Your task to perform on an android device: Search for sushi restaurants on Maps Image 0: 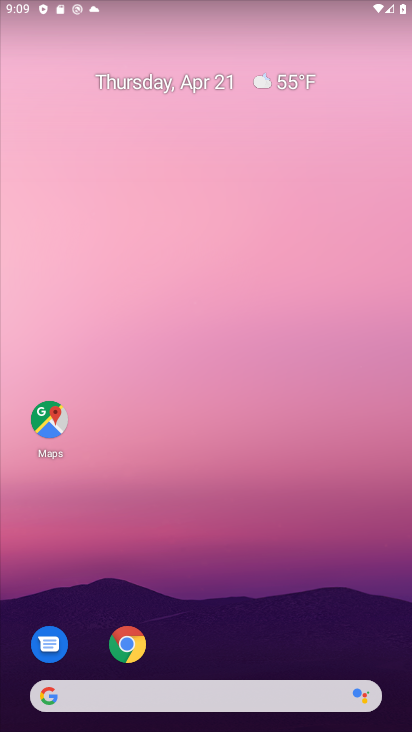
Step 0: drag from (256, 226) to (282, 123)
Your task to perform on an android device: Search for sushi restaurants on Maps Image 1: 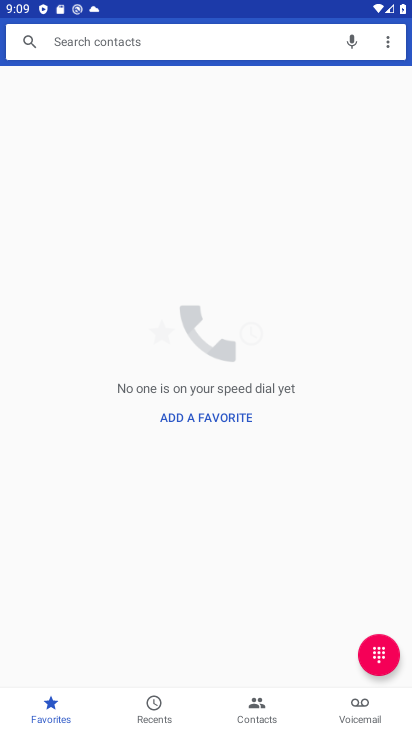
Step 1: press home button
Your task to perform on an android device: Search for sushi restaurants on Maps Image 2: 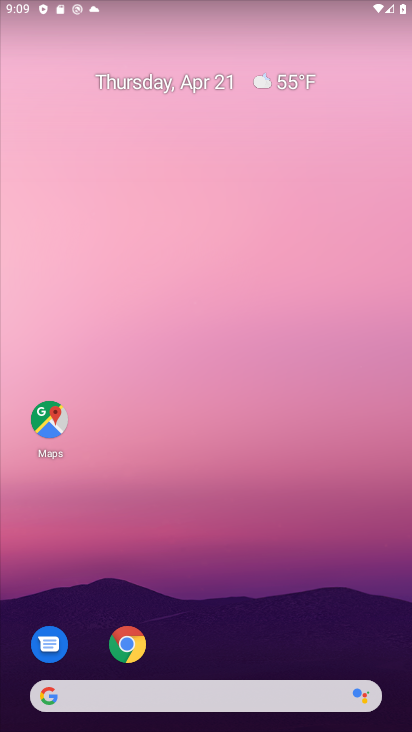
Step 2: drag from (283, 601) to (323, 156)
Your task to perform on an android device: Search for sushi restaurants on Maps Image 3: 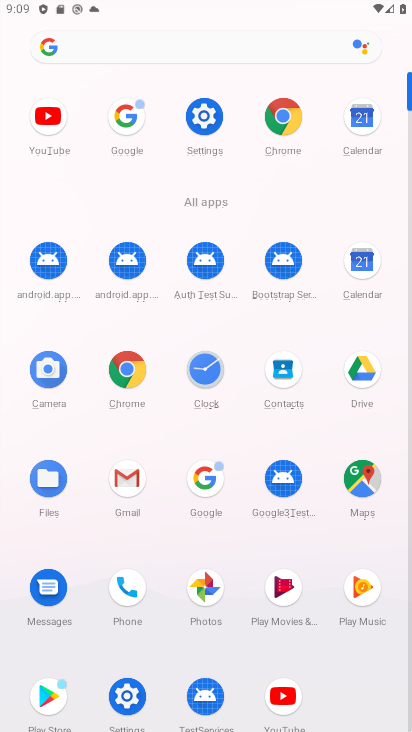
Step 3: click (360, 487)
Your task to perform on an android device: Search for sushi restaurants on Maps Image 4: 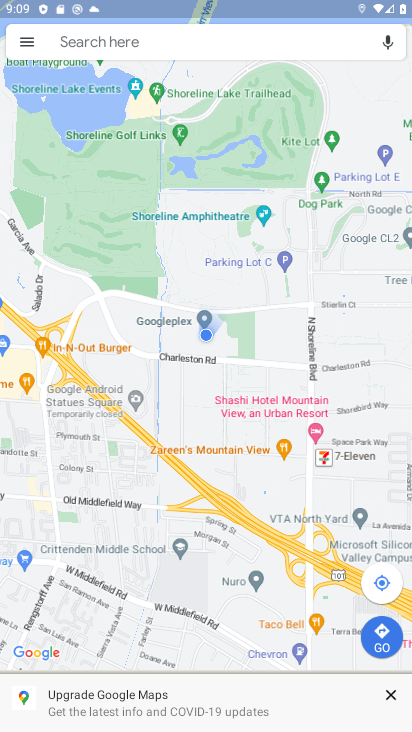
Step 4: click (283, 40)
Your task to perform on an android device: Search for sushi restaurants on Maps Image 5: 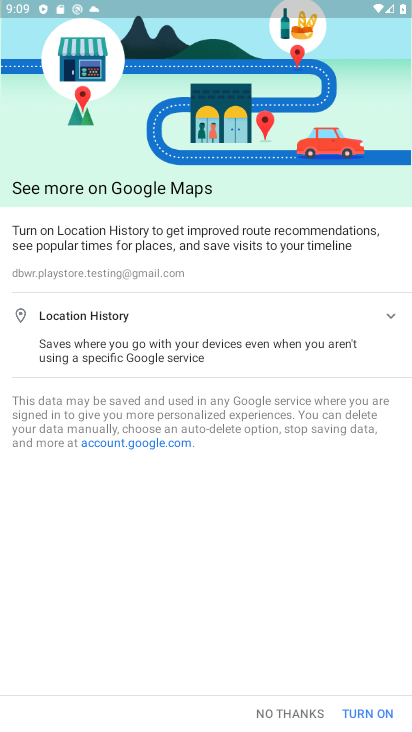
Step 5: click (304, 714)
Your task to perform on an android device: Search for sushi restaurants on Maps Image 6: 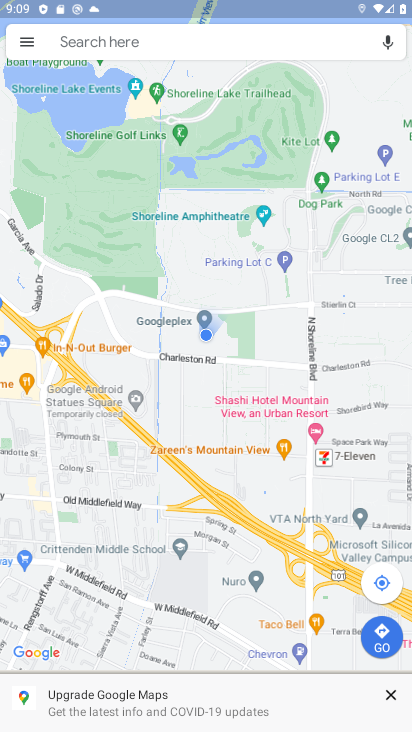
Step 6: click (176, 42)
Your task to perform on an android device: Search for sushi restaurants on Maps Image 7: 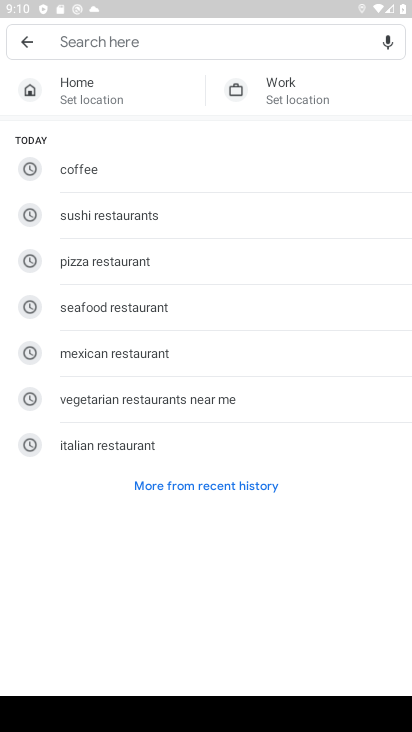
Step 7: click (132, 212)
Your task to perform on an android device: Search for sushi restaurants on Maps Image 8: 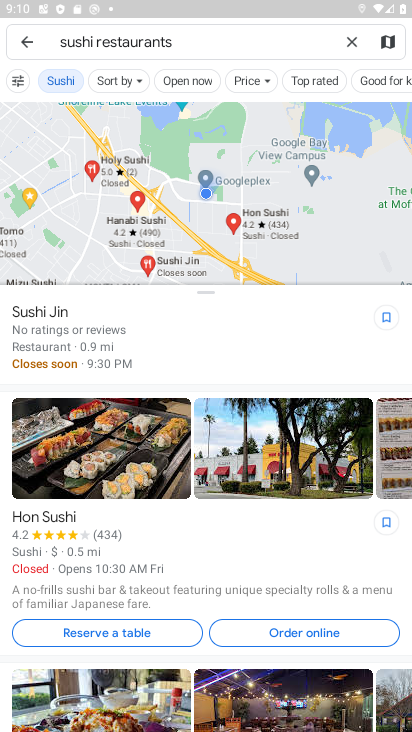
Step 8: task complete